Your task to perform on an android device: Go to location settings Image 0: 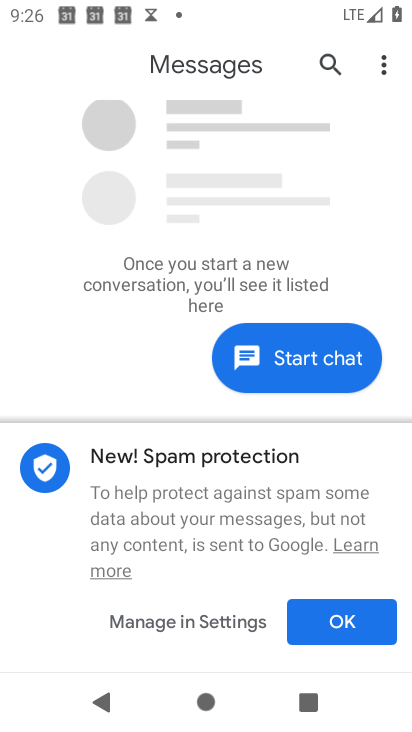
Step 0: press home button
Your task to perform on an android device: Go to location settings Image 1: 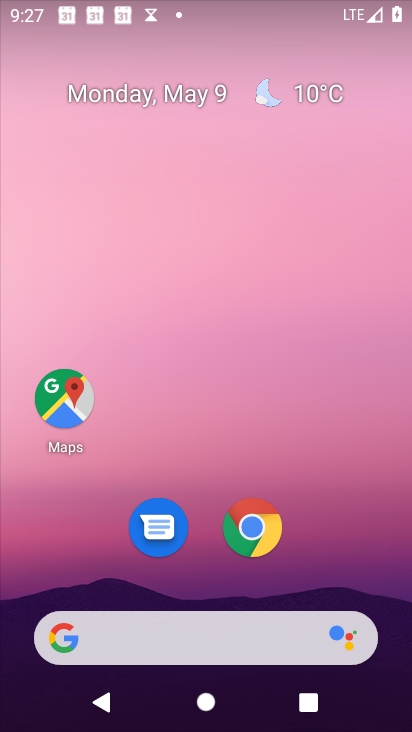
Step 1: drag from (216, 598) to (197, 197)
Your task to perform on an android device: Go to location settings Image 2: 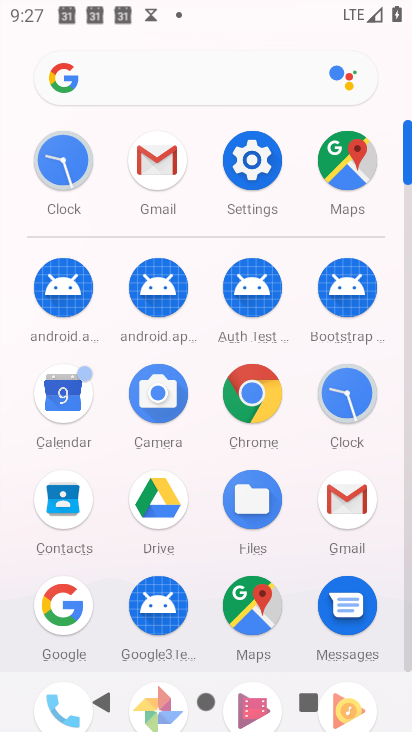
Step 2: click (247, 173)
Your task to perform on an android device: Go to location settings Image 3: 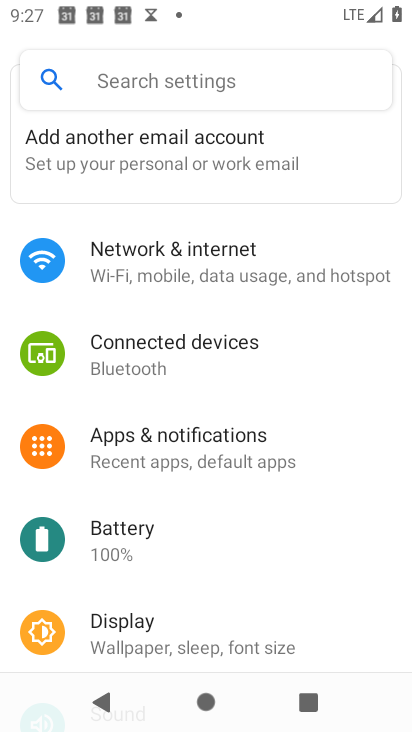
Step 3: drag from (220, 574) to (232, 256)
Your task to perform on an android device: Go to location settings Image 4: 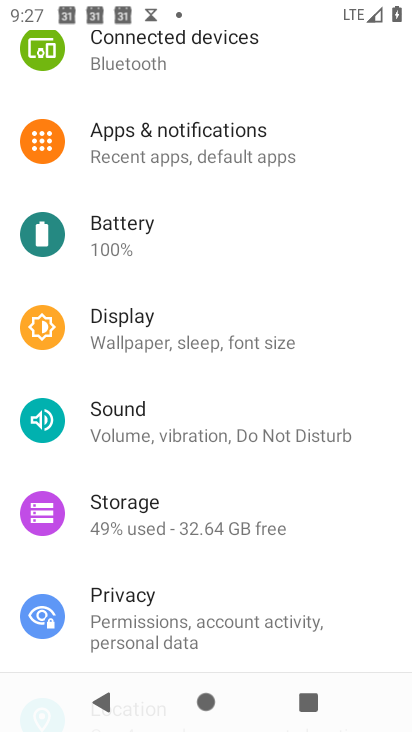
Step 4: drag from (172, 569) to (227, 176)
Your task to perform on an android device: Go to location settings Image 5: 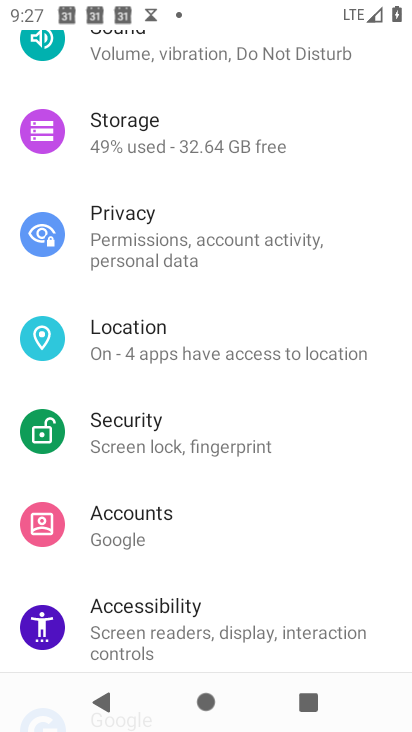
Step 5: click (188, 348)
Your task to perform on an android device: Go to location settings Image 6: 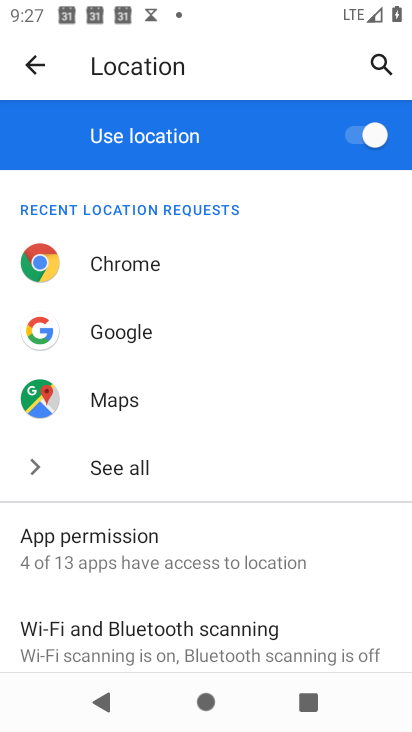
Step 6: task complete